Your task to perform on an android device: open a bookmark in the chrome app Image 0: 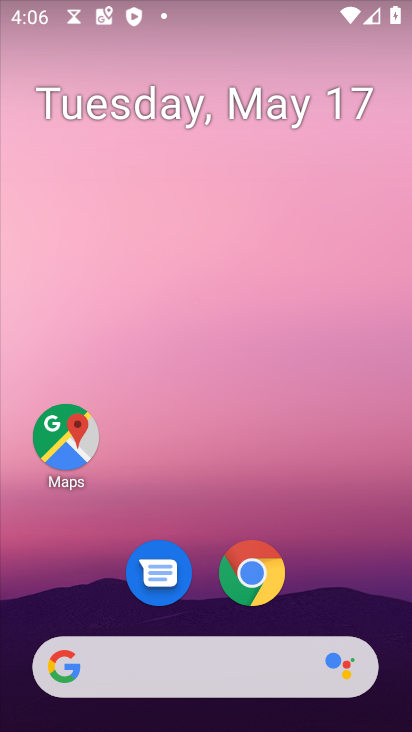
Step 0: click (278, 590)
Your task to perform on an android device: open a bookmark in the chrome app Image 1: 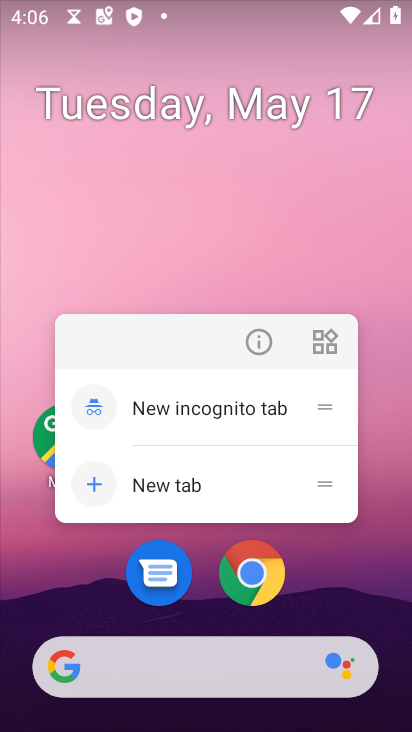
Step 1: click (272, 587)
Your task to perform on an android device: open a bookmark in the chrome app Image 2: 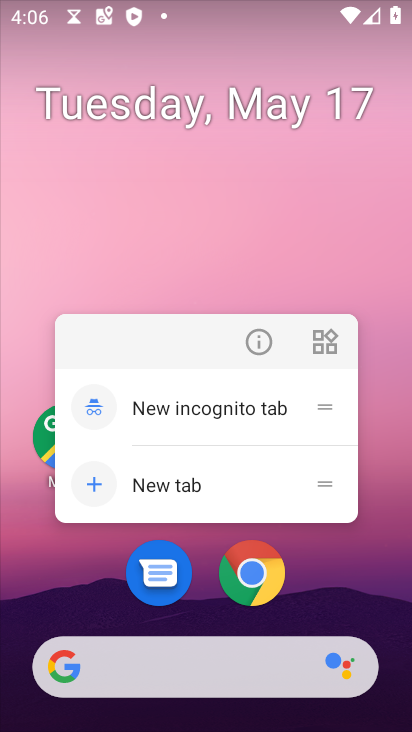
Step 2: click (272, 587)
Your task to perform on an android device: open a bookmark in the chrome app Image 3: 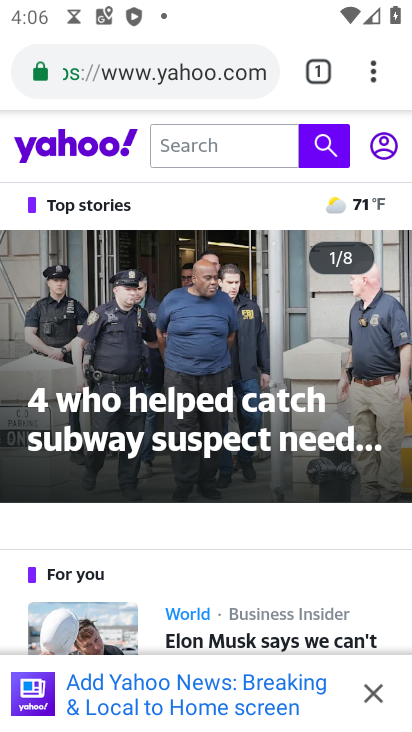
Step 3: click (380, 71)
Your task to perform on an android device: open a bookmark in the chrome app Image 4: 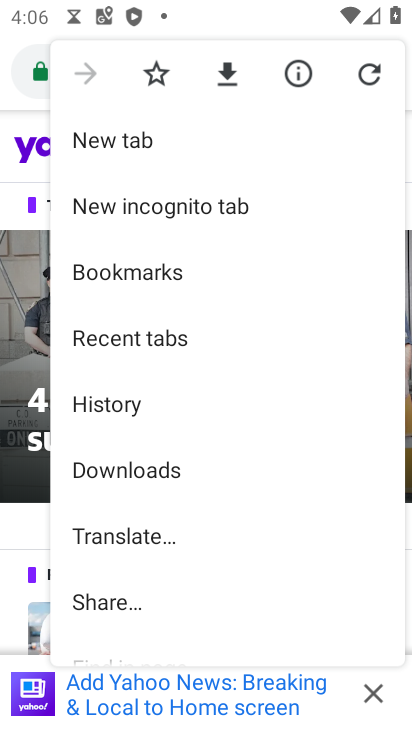
Step 4: click (260, 285)
Your task to perform on an android device: open a bookmark in the chrome app Image 5: 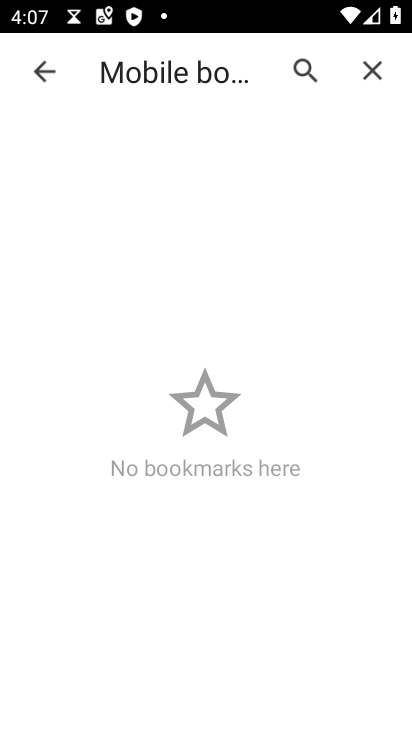
Step 5: task complete